Your task to perform on an android device: Go to ESPN.com Image 0: 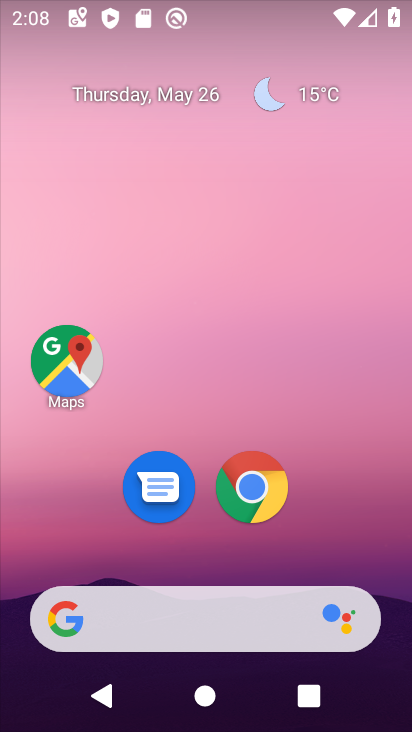
Step 0: click (258, 492)
Your task to perform on an android device: Go to ESPN.com Image 1: 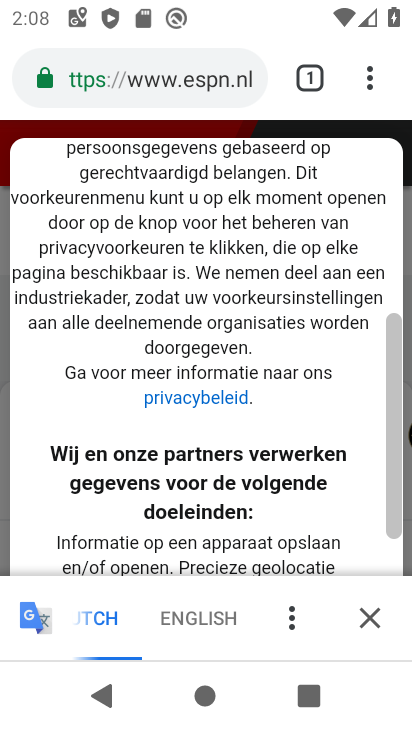
Step 1: task complete